Your task to perform on an android device: Go to location settings Image 0: 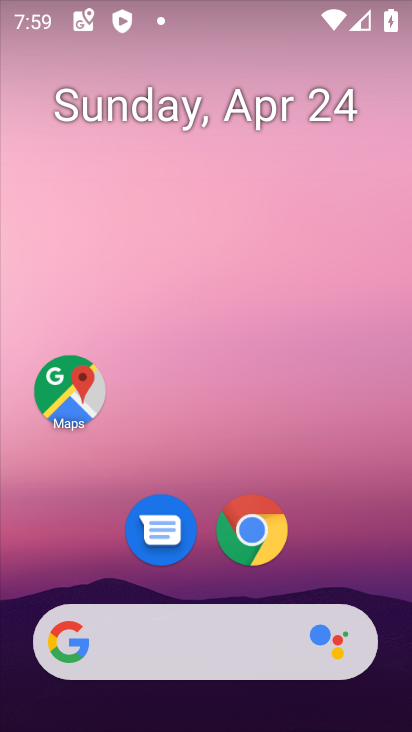
Step 0: click (69, 398)
Your task to perform on an android device: Go to location settings Image 1: 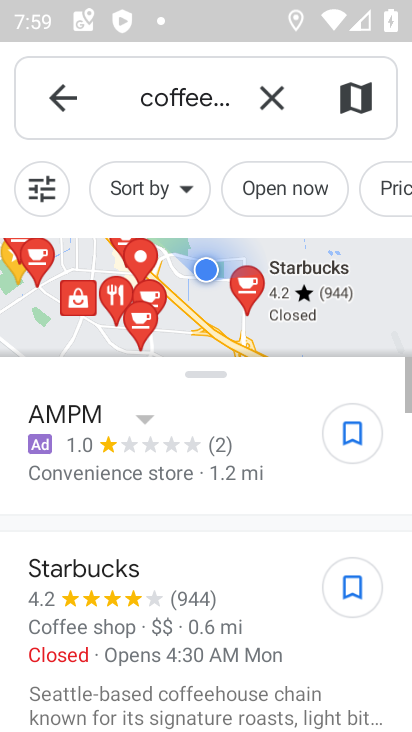
Step 1: click (61, 92)
Your task to perform on an android device: Go to location settings Image 2: 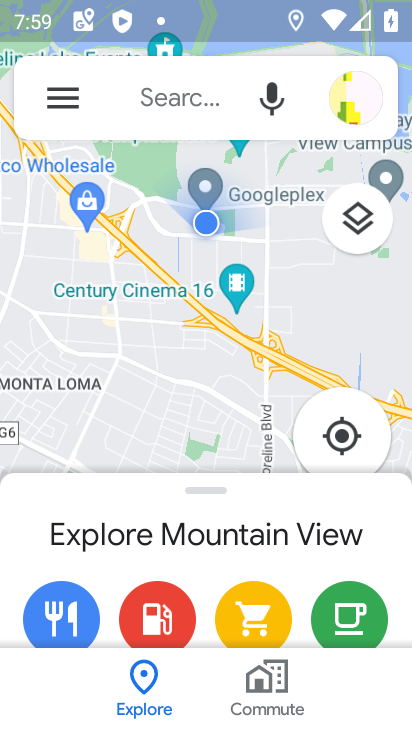
Step 2: click (61, 92)
Your task to perform on an android device: Go to location settings Image 3: 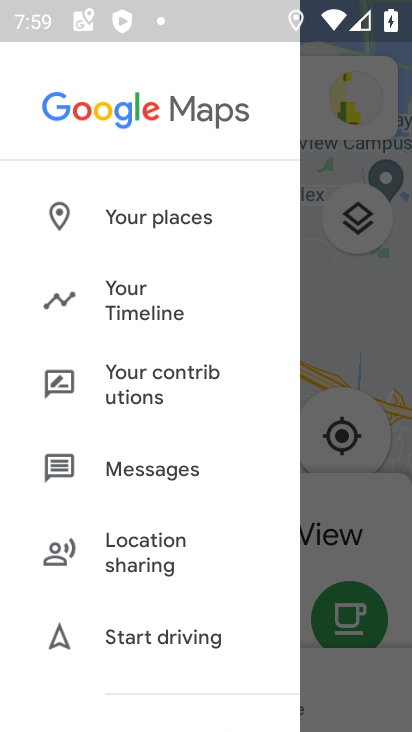
Step 3: drag from (91, 583) to (128, 131)
Your task to perform on an android device: Go to location settings Image 4: 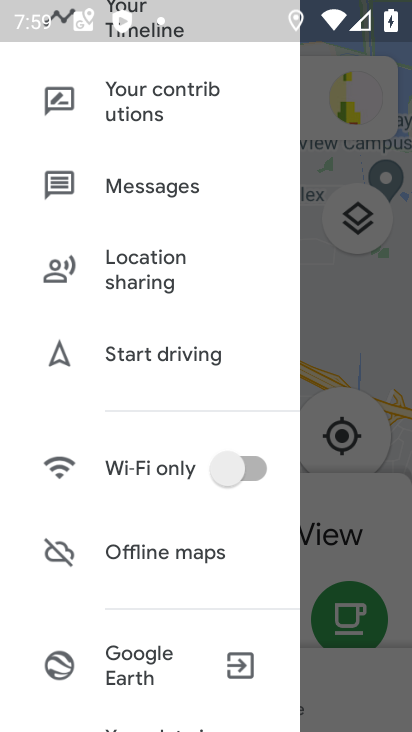
Step 4: drag from (69, 697) to (139, 285)
Your task to perform on an android device: Go to location settings Image 5: 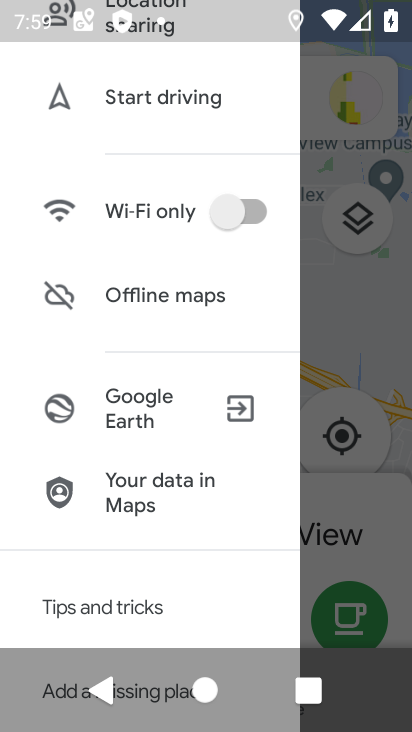
Step 5: drag from (142, 545) to (195, 197)
Your task to perform on an android device: Go to location settings Image 6: 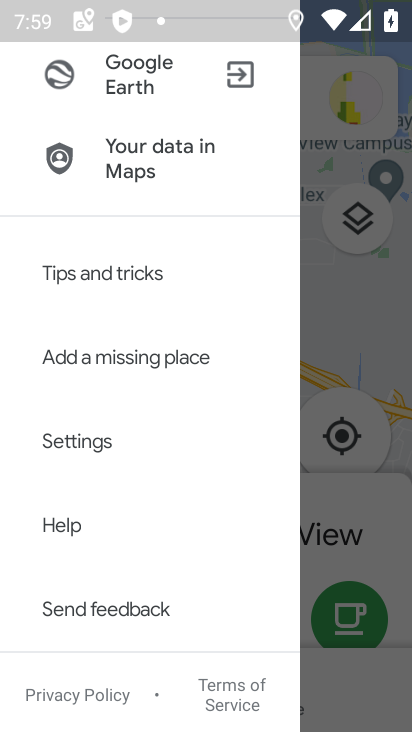
Step 6: drag from (91, 645) to (133, 77)
Your task to perform on an android device: Go to location settings Image 7: 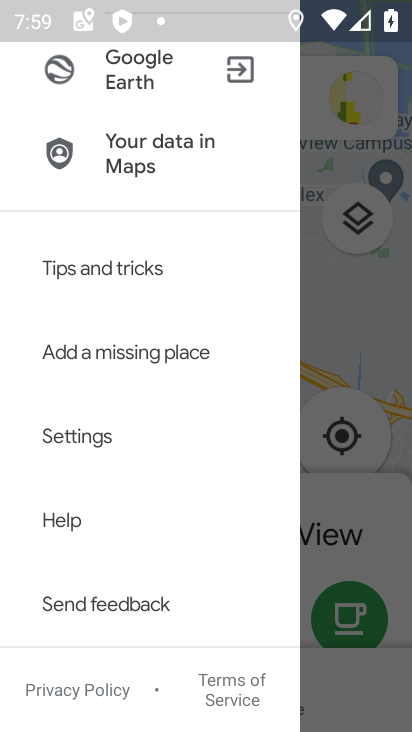
Step 7: click (67, 443)
Your task to perform on an android device: Go to location settings Image 8: 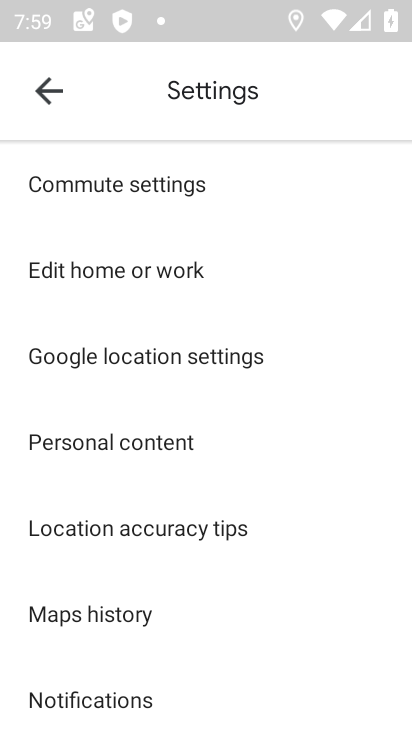
Step 8: task complete